Your task to perform on an android device: install app "Gboard" Image 0: 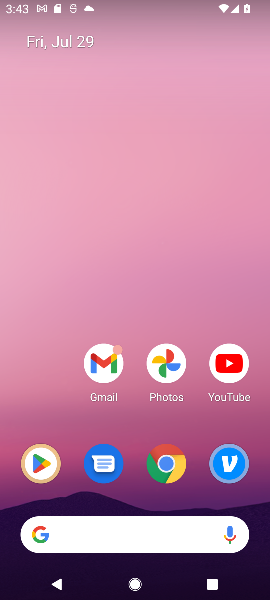
Step 0: drag from (182, 531) to (180, 118)
Your task to perform on an android device: install app "Gboard" Image 1: 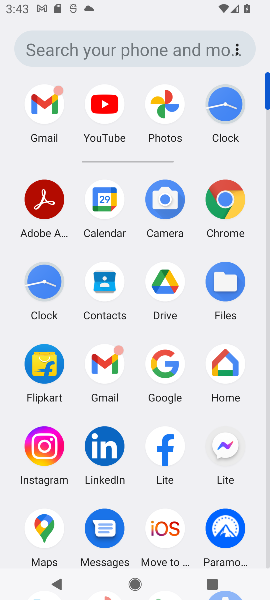
Step 1: drag from (143, 512) to (117, 268)
Your task to perform on an android device: install app "Gboard" Image 2: 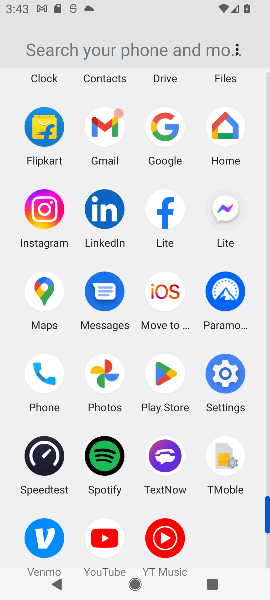
Step 2: click (165, 372)
Your task to perform on an android device: install app "Gboard" Image 3: 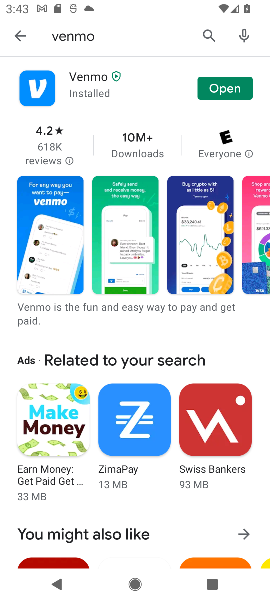
Step 3: click (207, 34)
Your task to perform on an android device: install app "Gboard" Image 4: 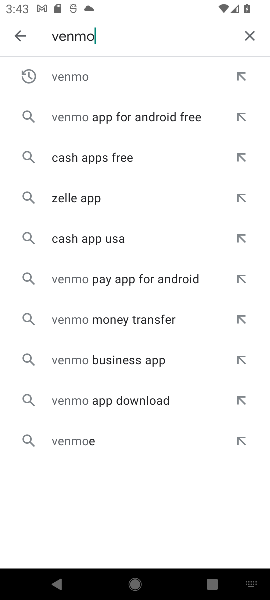
Step 4: click (248, 38)
Your task to perform on an android device: install app "Gboard" Image 5: 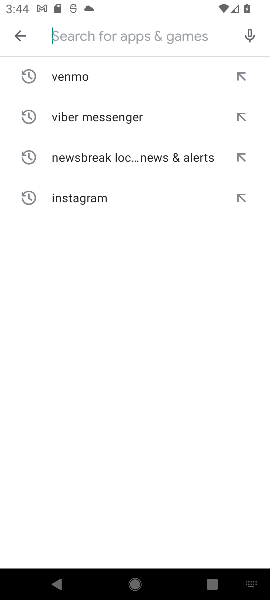
Step 5: type "Gboard"
Your task to perform on an android device: install app "Gboard" Image 6: 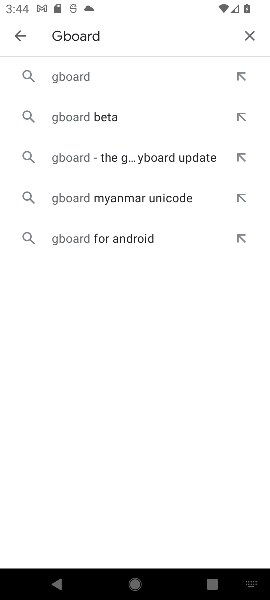
Step 6: click (74, 81)
Your task to perform on an android device: install app "Gboard" Image 7: 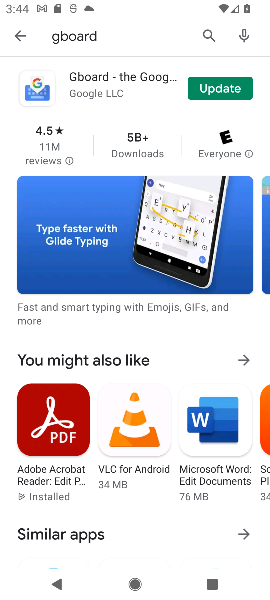
Step 7: click (219, 90)
Your task to perform on an android device: install app "Gboard" Image 8: 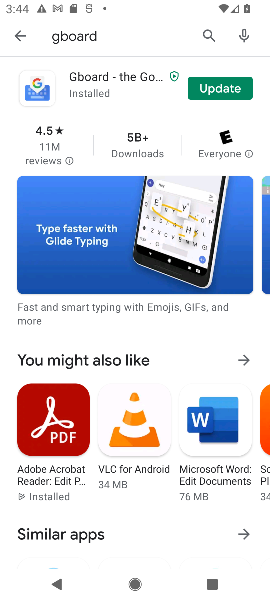
Step 8: task complete